Your task to perform on an android device: see creations saved in the google photos Image 0: 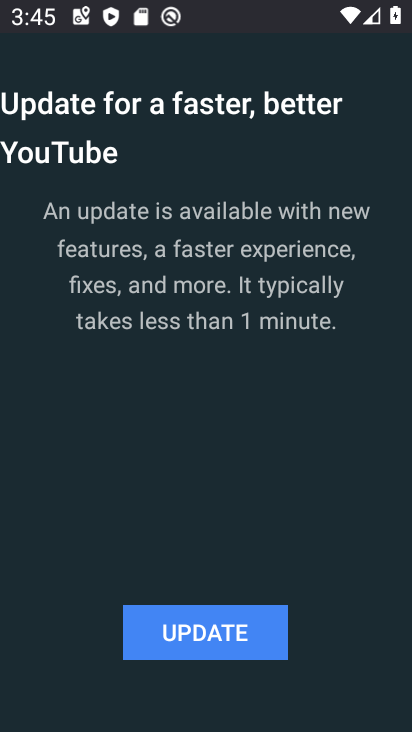
Step 0: press home button
Your task to perform on an android device: see creations saved in the google photos Image 1: 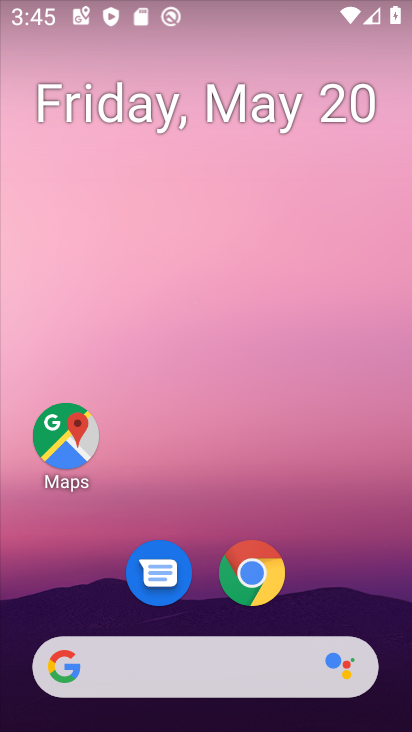
Step 1: drag from (400, 636) to (325, 48)
Your task to perform on an android device: see creations saved in the google photos Image 2: 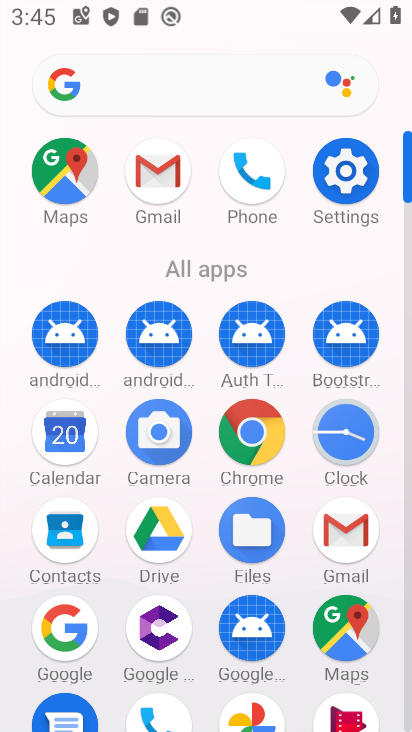
Step 2: click (405, 703)
Your task to perform on an android device: see creations saved in the google photos Image 3: 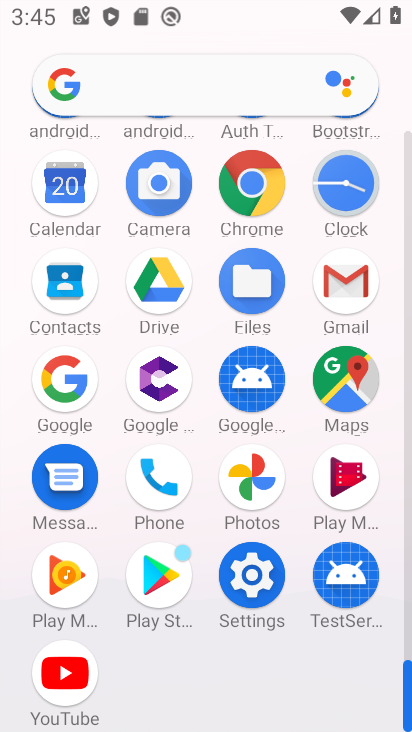
Step 3: click (257, 471)
Your task to perform on an android device: see creations saved in the google photos Image 4: 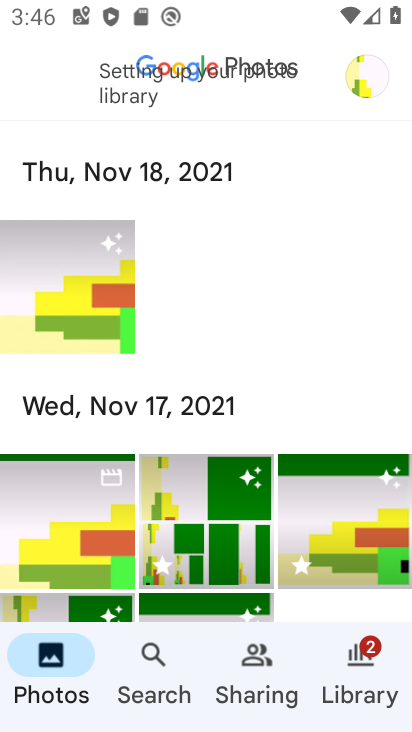
Step 4: task complete